Your task to perform on an android device: Do I have any events tomorrow? Image 0: 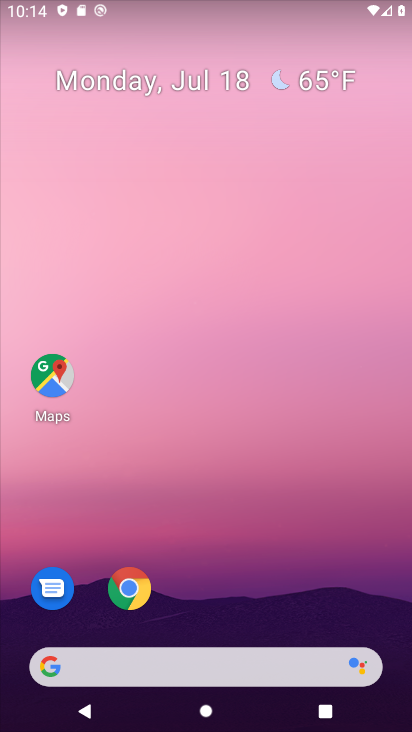
Step 0: press home button
Your task to perform on an android device: Do I have any events tomorrow? Image 1: 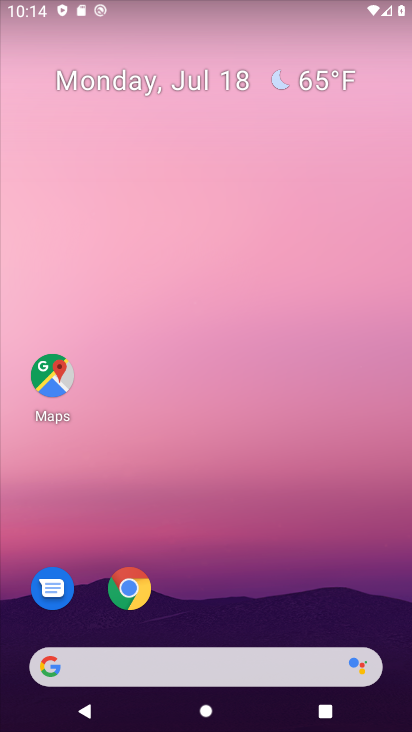
Step 1: drag from (320, 567) to (265, 124)
Your task to perform on an android device: Do I have any events tomorrow? Image 2: 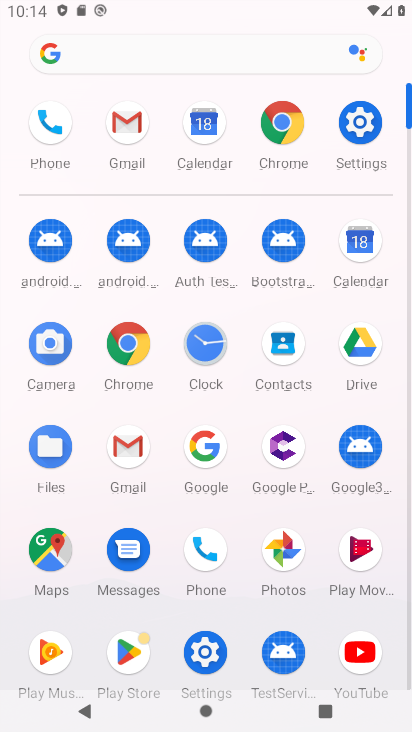
Step 2: click (353, 226)
Your task to perform on an android device: Do I have any events tomorrow? Image 3: 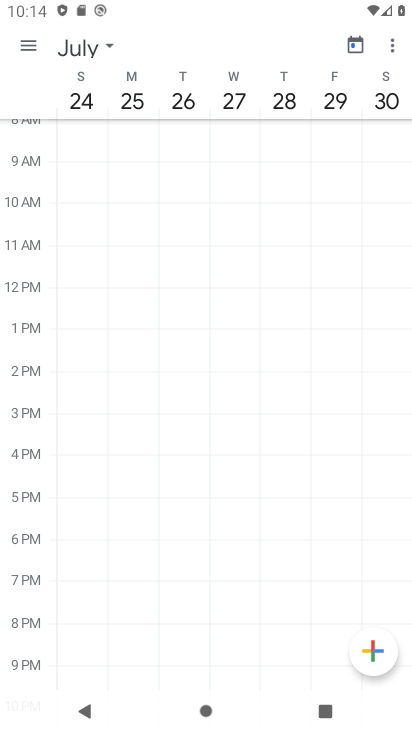
Step 3: drag from (97, 89) to (406, 100)
Your task to perform on an android device: Do I have any events tomorrow? Image 4: 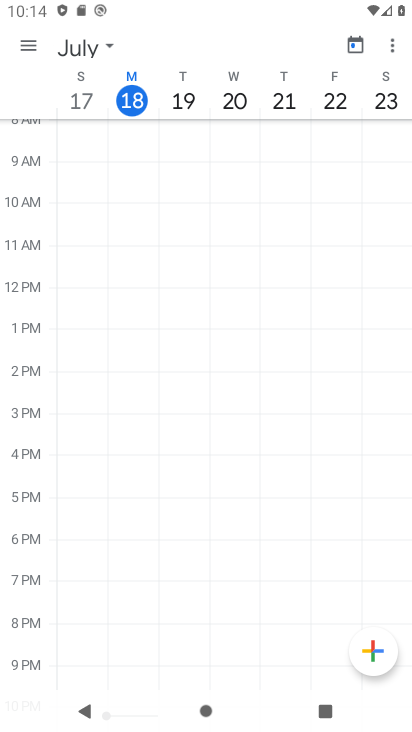
Step 4: click (241, 96)
Your task to perform on an android device: Do I have any events tomorrow? Image 5: 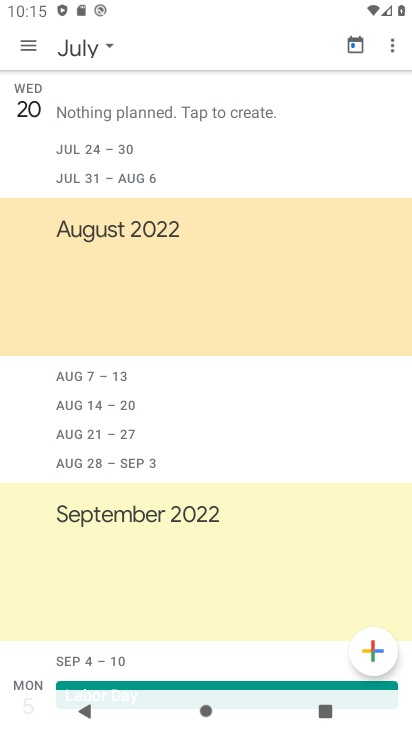
Step 5: task complete